Your task to perform on an android device: turn off improve location accuracy Image 0: 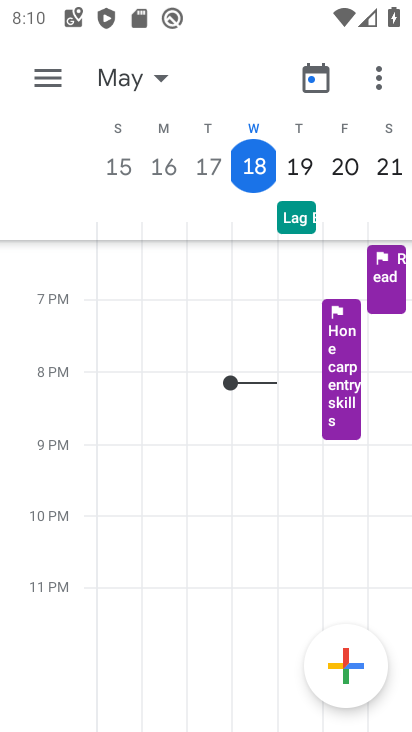
Step 0: press home button
Your task to perform on an android device: turn off improve location accuracy Image 1: 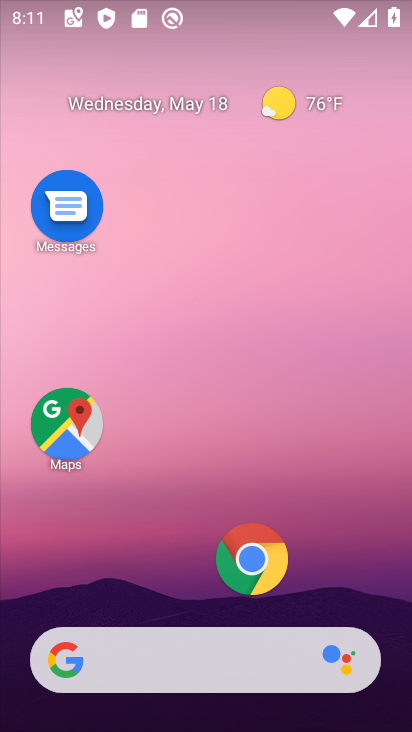
Step 1: drag from (198, 609) to (156, 35)
Your task to perform on an android device: turn off improve location accuracy Image 2: 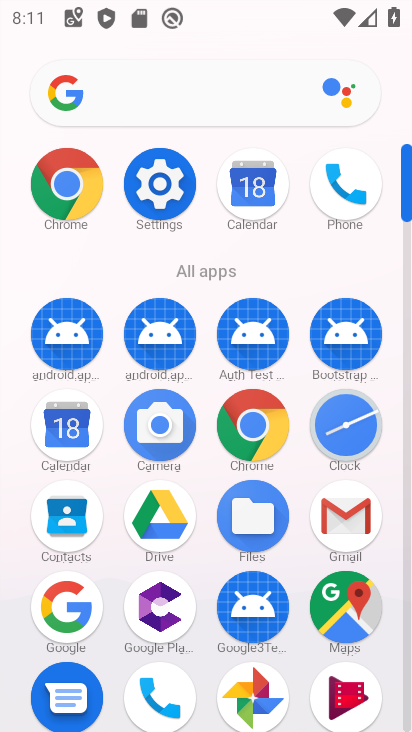
Step 2: click (153, 196)
Your task to perform on an android device: turn off improve location accuracy Image 3: 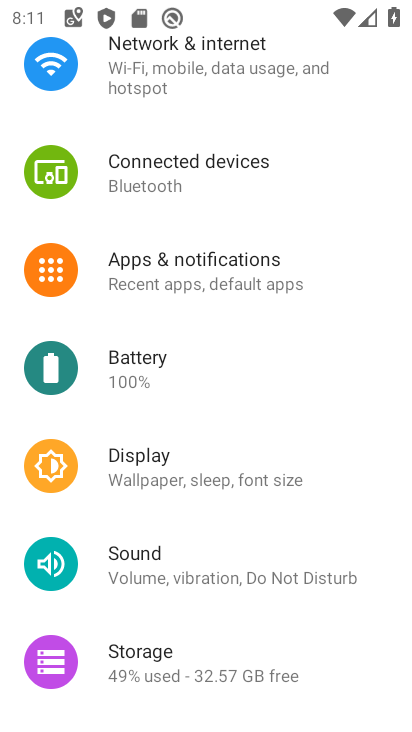
Step 3: drag from (250, 598) to (249, 268)
Your task to perform on an android device: turn off improve location accuracy Image 4: 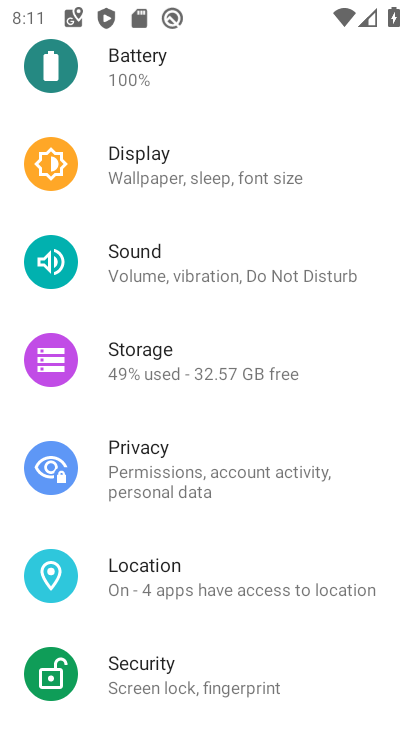
Step 4: click (195, 582)
Your task to perform on an android device: turn off improve location accuracy Image 5: 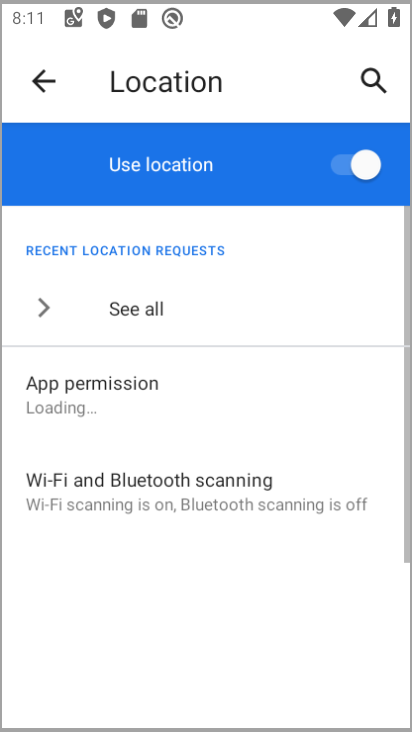
Step 5: drag from (193, 583) to (148, 271)
Your task to perform on an android device: turn off improve location accuracy Image 6: 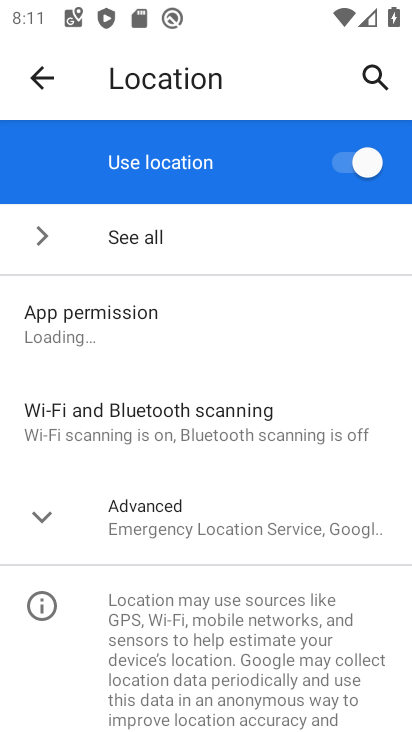
Step 6: click (172, 534)
Your task to perform on an android device: turn off improve location accuracy Image 7: 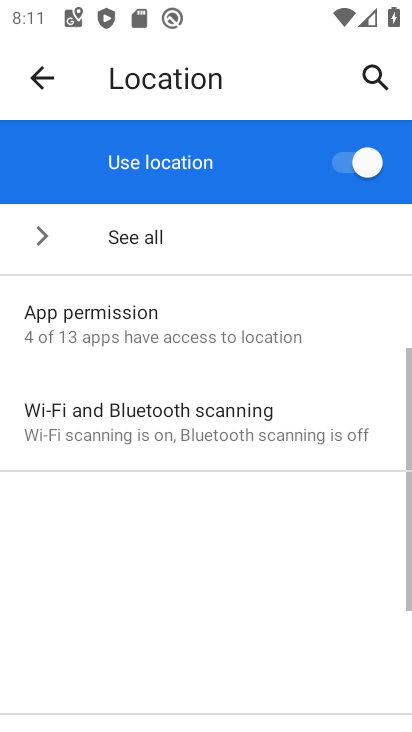
Step 7: drag from (172, 534) to (132, 252)
Your task to perform on an android device: turn off improve location accuracy Image 8: 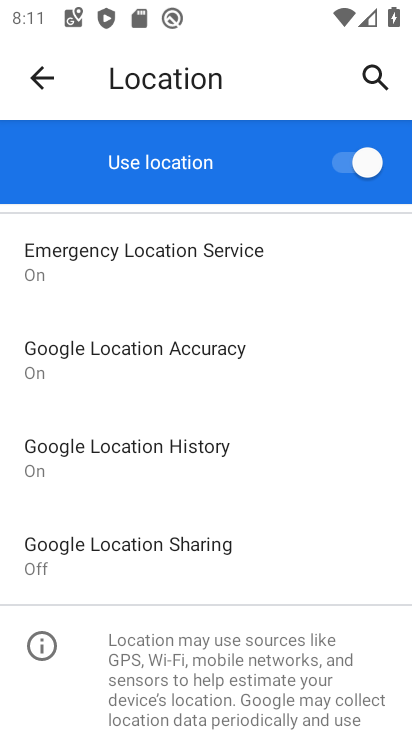
Step 8: click (160, 465)
Your task to perform on an android device: turn off improve location accuracy Image 9: 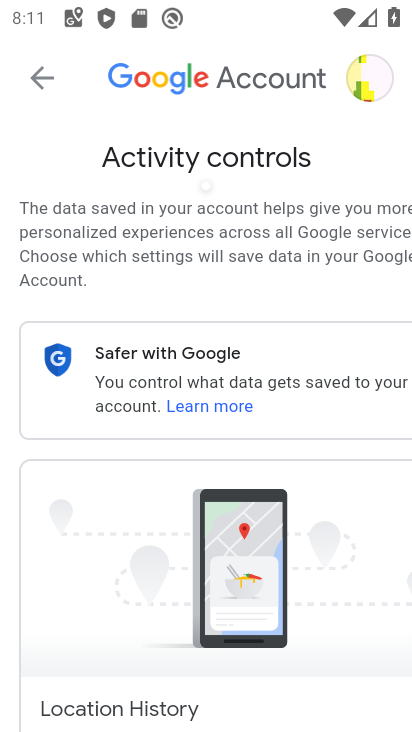
Step 9: drag from (314, 582) to (272, 120)
Your task to perform on an android device: turn off improve location accuracy Image 10: 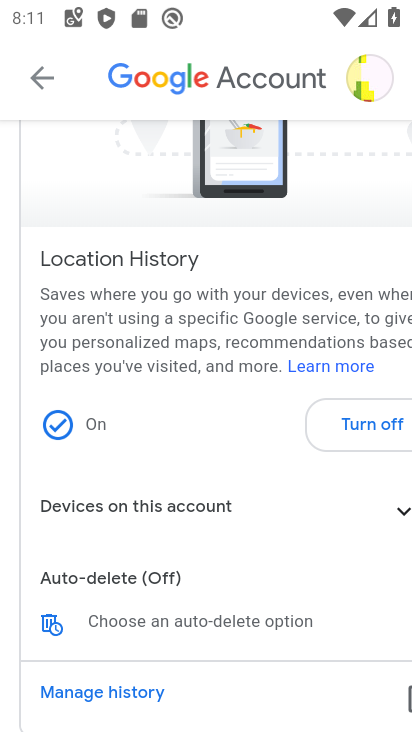
Step 10: click (326, 437)
Your task to perform on an android device: turn off improve location accuracy Image 11: 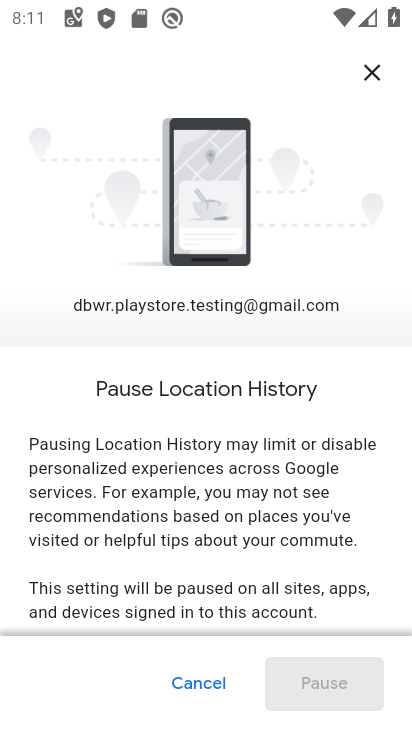
Step 11: drag from (316, 638) to (280, 59)
Your task to perform on an android device: turn off improve location accuracy Image 12: 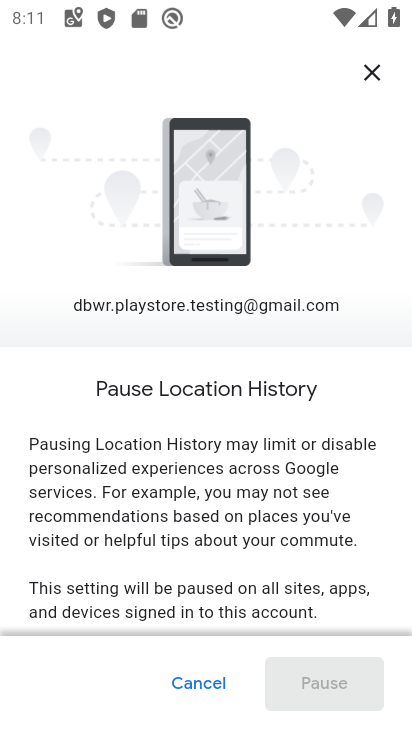
Step 12: drag from (293, 477) to (238, 11)
Your task to perform on an android device: turn off improve location accuracy Image 13: 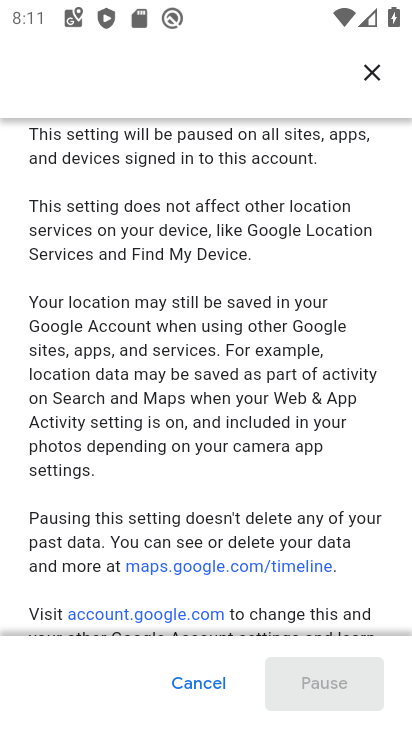
Step 13: drag from (307, 564) to (264, 15)
Your task to perform on an android device: turn off improve location accuracy Image 14: 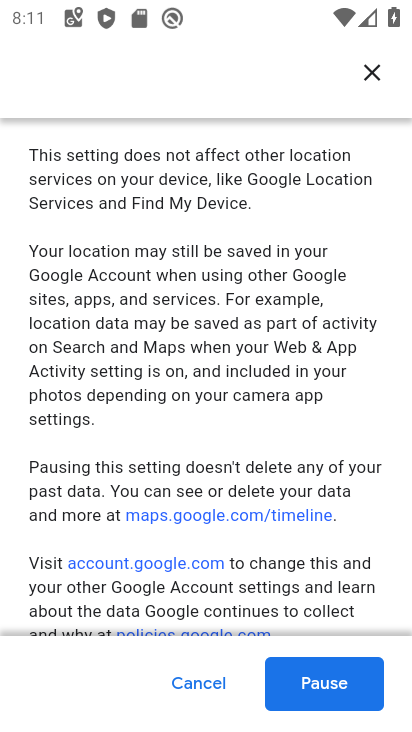
Step 14: click (327, 717)
Your task to perform on an android device: turn off improve location accuracy Image 15: 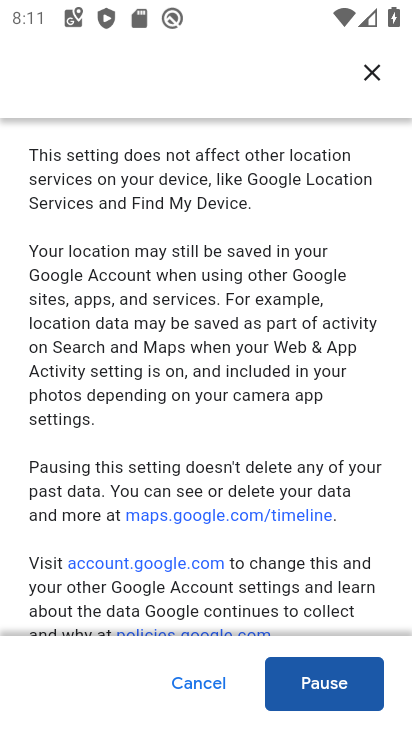
Step 15: click (324, 686)
Your task to perform on an android device: turn off improve location accuracy Image 16: 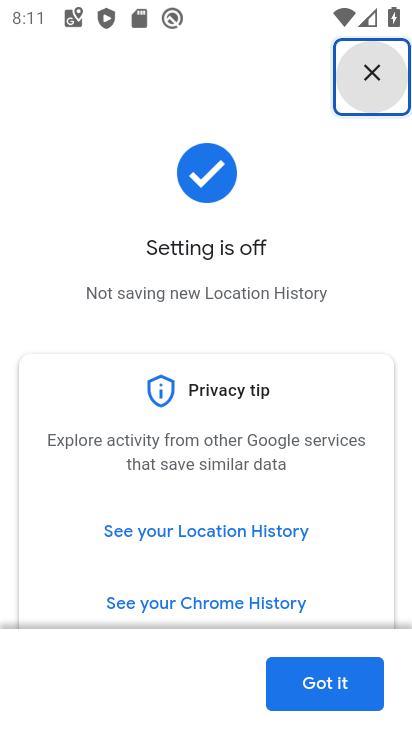
Step 16: click (324, 686)
Your task to perform on an android device: turn off improve location accuracy Image 17: 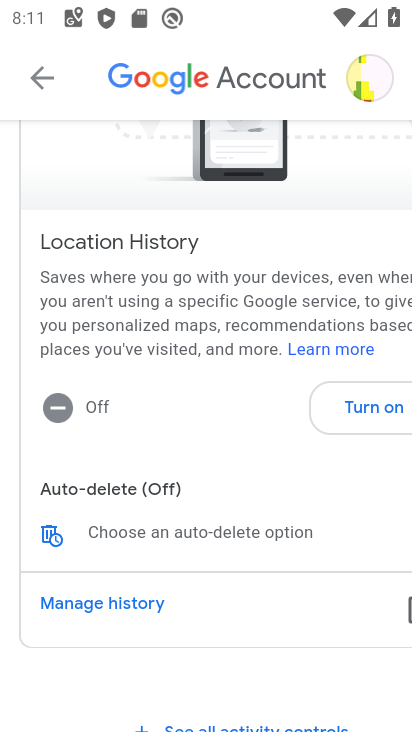
Step 17: task complete